Your task to perform on an android device: Open Google Chrome Image 0: 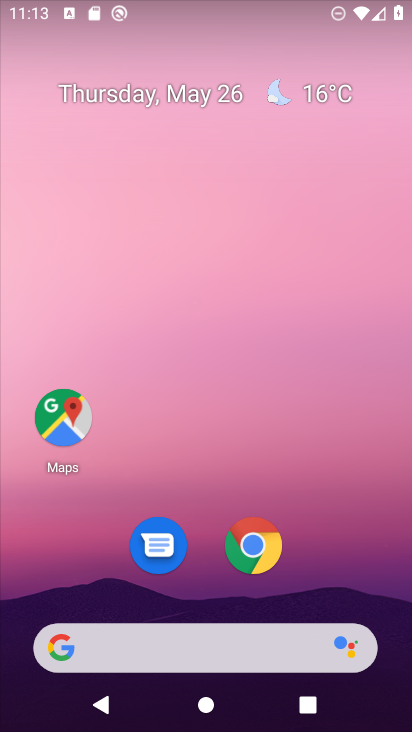
Step 0: click (254, 556)
Your task to perform on an android device: Open Google Chrome Image 1: 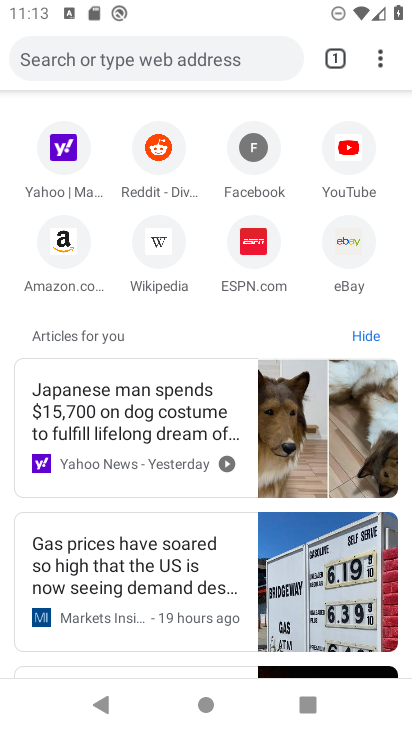
Step 1: task complete